Your task to perform on an android device: see sites visited before in the chrome app Image 0: 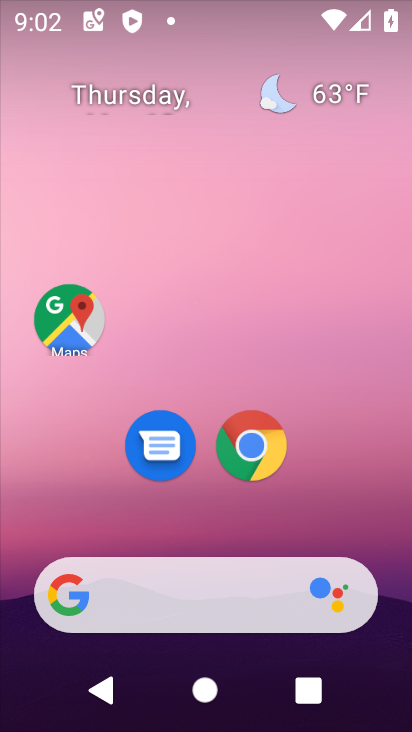
Step 0: click (262, 440)
Your task to perform on an android device: see sites visited before in the chrome app Image 1: 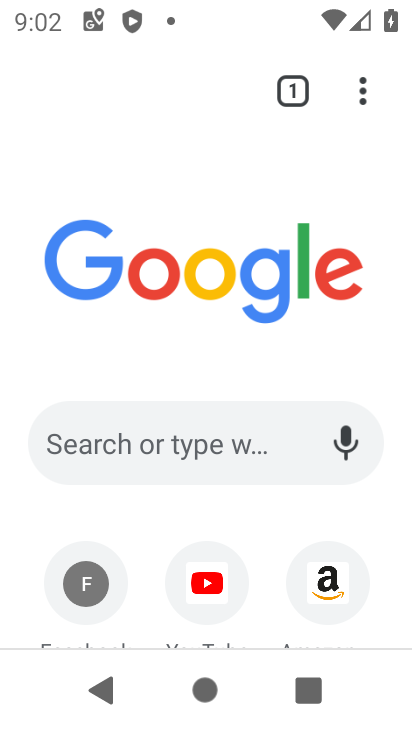
Step 1: click (368, 100)
Your task to perform on an android device: see sites visited before in the chrome app Image 2: 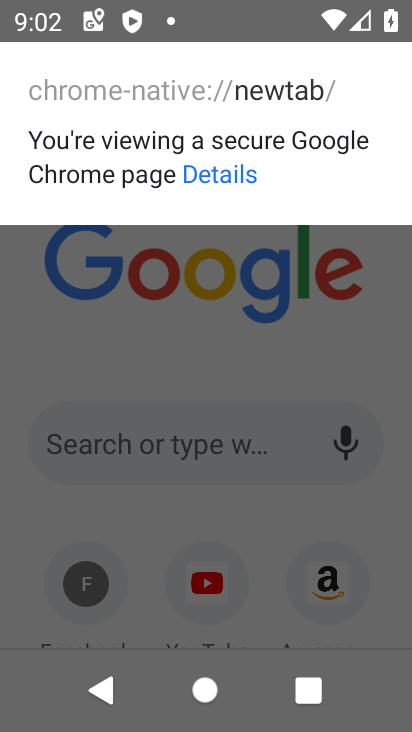
Step 2: click (214, 344)
Your task to perform on an android device: see sites visited before in the chrome app Image 3: 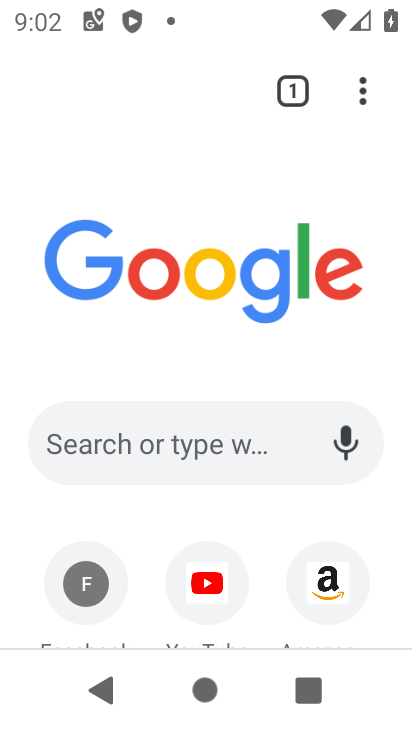
Step 3: click (363, 94)
Your task to perform on an android device: see sites visited before in the chrome app Image 4: 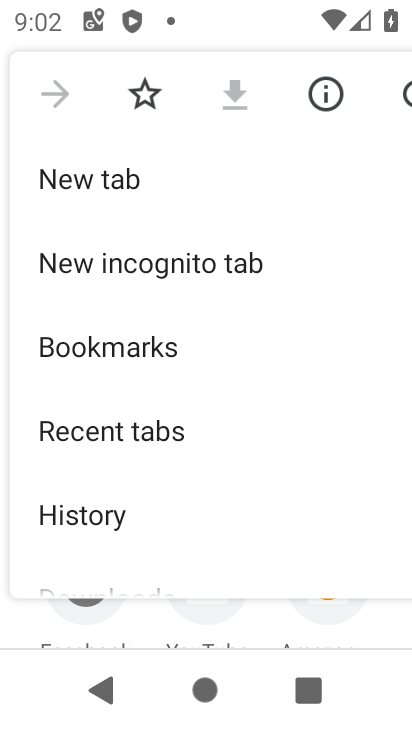
Step 4: drag from (111, 495) to (150, 181)
Your task to perform on an android device: see sites visited before in the chrome app Image 5: 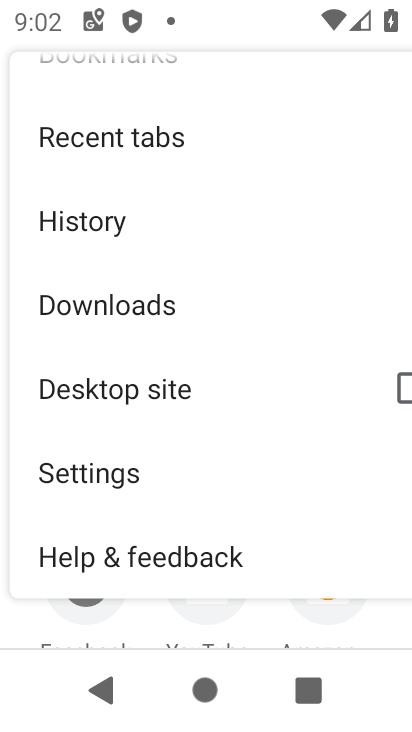
Step 5: click (90, 230)
Your task to perform on an android device: see sites visited before in the chrome app Image 6: 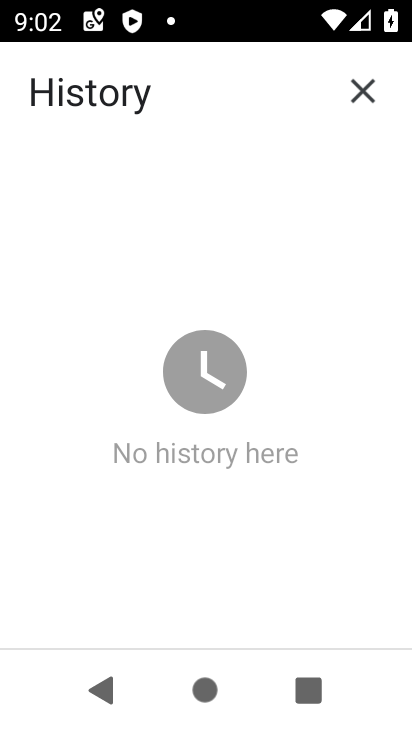
Step 6: task complete